Your task to perform on an android device: allow cookies in the chrome app Image 0: 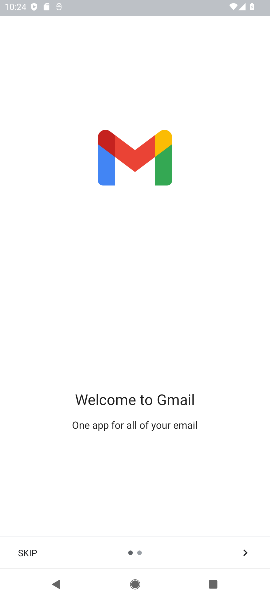
Step 0: press home button
Your task to perform on an android device: allow cookies in the chrome app Image 1: 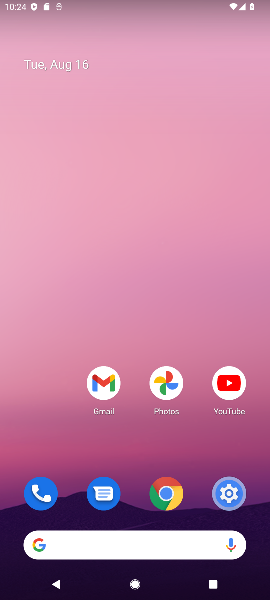
Step 1: click (172, 491)
Your task to perform on an android device: allow cookies in the chrome app Image 2: 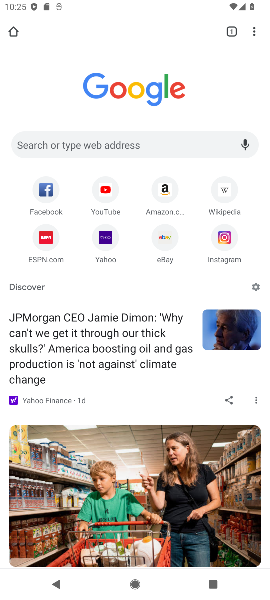
Step 2: click (249, 35)
Your task to perform on an android device: allow cookies in the chrome app Image 3: 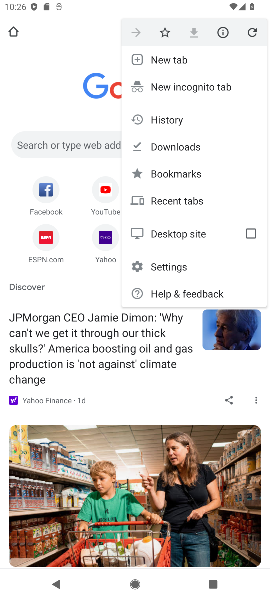
Step 3: click (191, 266)
Your task to perform on an android device: allow cookies in the chrome app Image 4: 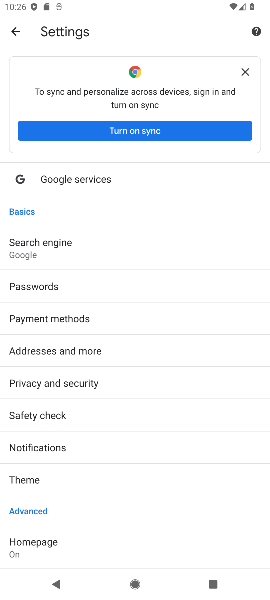
Step 4: drag from (145, 331) to (148, 255)
Your task to perform on an android device: allow cookies in the chrome app Image 5: 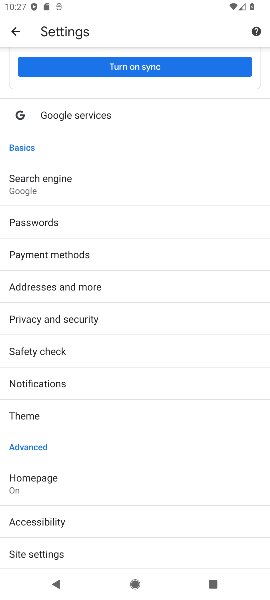
Step 5: click (120, 549)
Your task to perform on an android device: allow cookies in the chrome app Image 6: 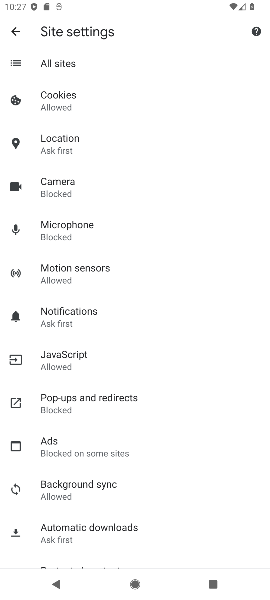
Step 6: click (83, 93)
Your task to perform on an android device: allow cookies in the chrome app Image 7: 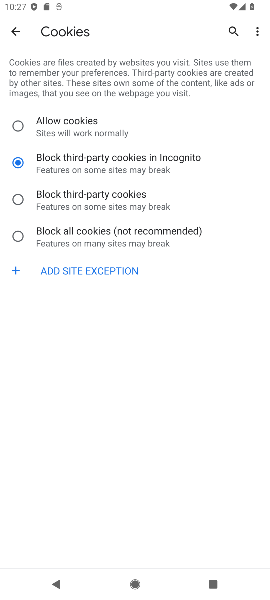
Step 7: task complete